Your task to perform on an android device: uninstall "Mercado Libre" Image 0: 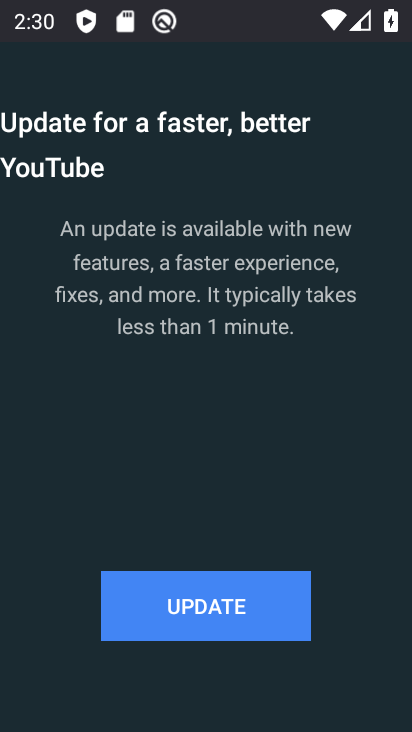
Step 0: press home button
Your task to perform on an android device: uninstall "Mercado Libre" Image 1: 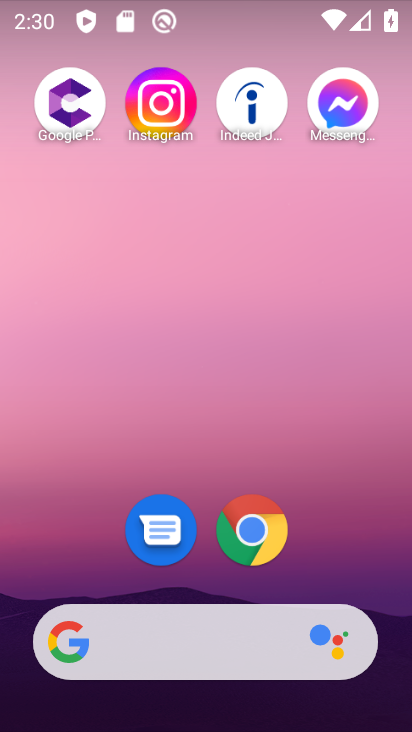
Step 1: drag from (209, 525) to (239, 82)
Your task to perform on an android device: uninstall "Mercado Libre" Image 2: 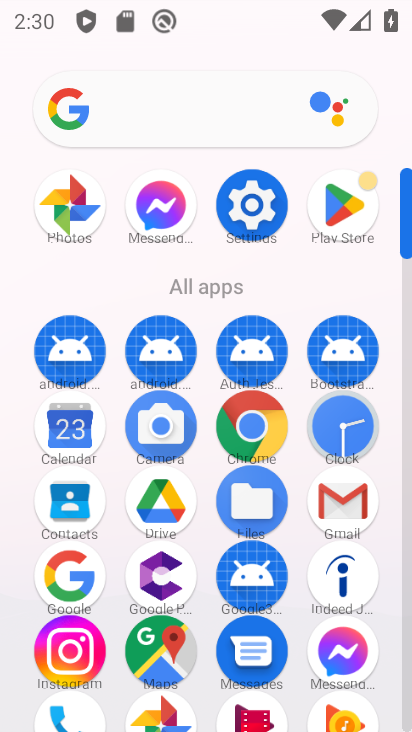
Step 2: click (356, 205)
Your task to perform on an android device: uninstall "Mercado Libre" Image 3: 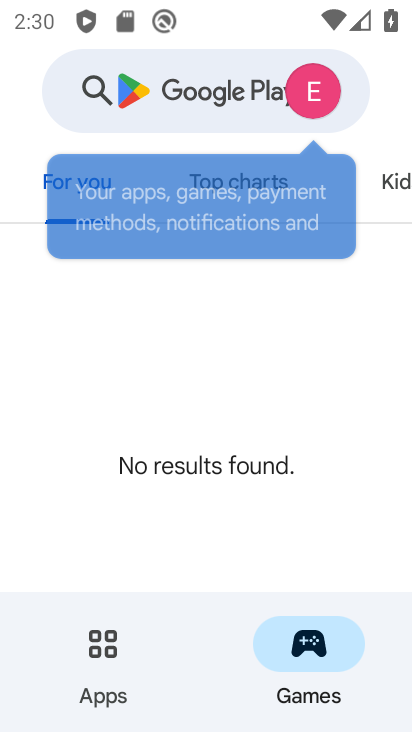
Step 3: click (198, 101)
Your task to perform on an android device: uninstall "Mercado Libre" Image 4: 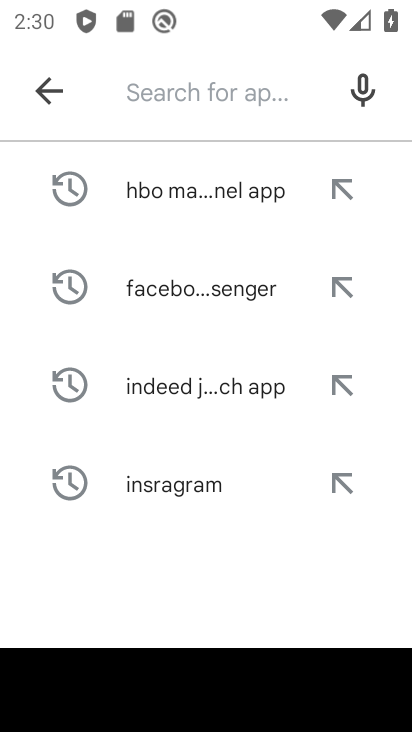
Step 4: type "mercado libre"
Your task to perform on an android device: uninstall "Mercado Libre" Image 5: 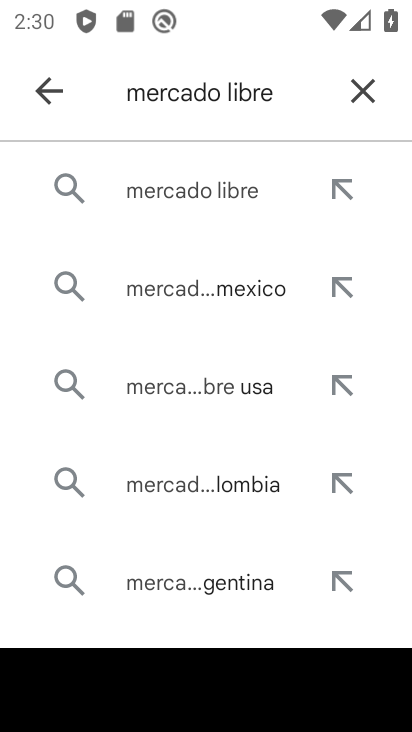
Step 5: click (178, 202)
Your task to perform on an android device: uninstall "Mercado Libre" Image 6: 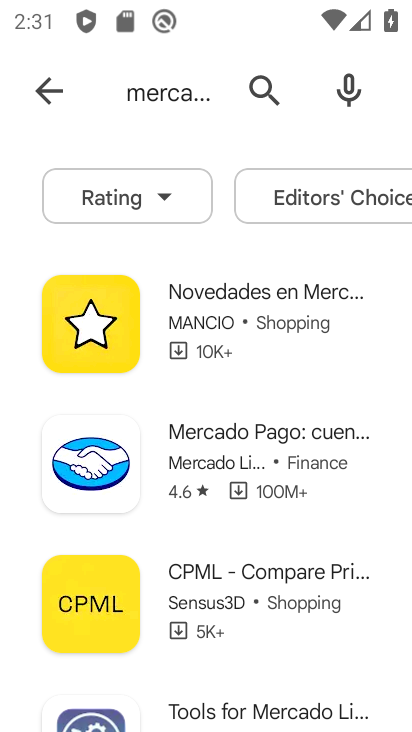
Step 6: task complete